Your task to perform on an android device: change your default location settings in chrome Image 0: 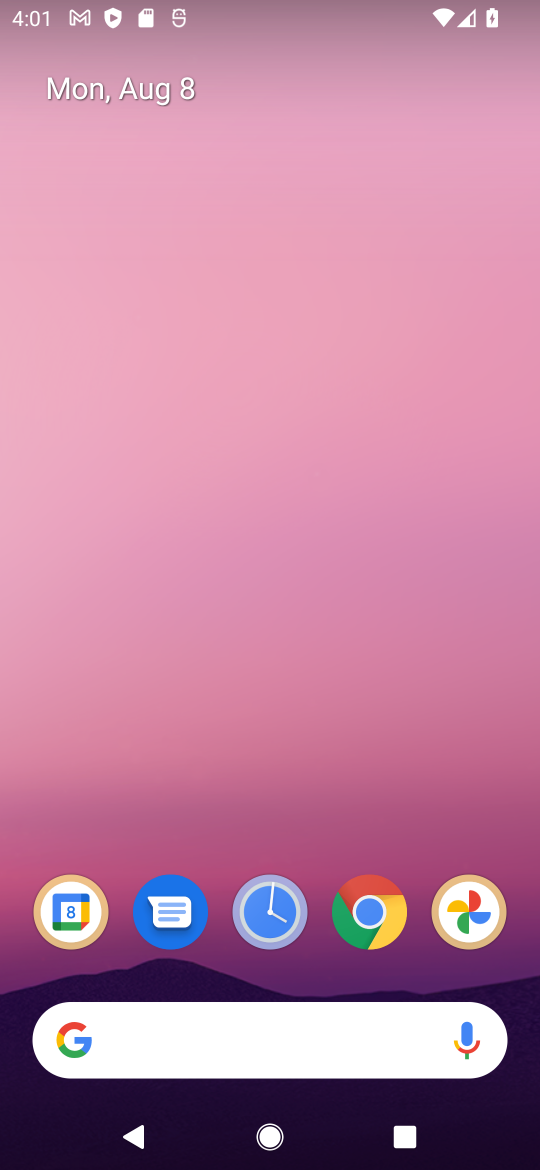
Step 0: click (372, 920)
Your task to perform on an android device: change your default location settings in chrome Image 1: 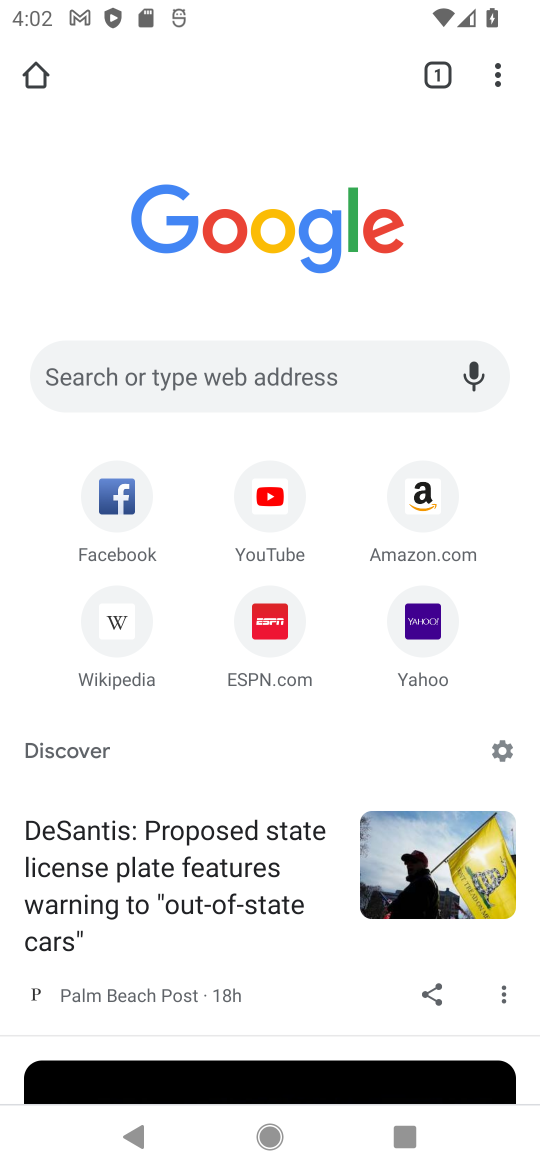
Step 1: click (497, 82)
Your task to perform on an android device: change your default location settings in chrome Image 2: 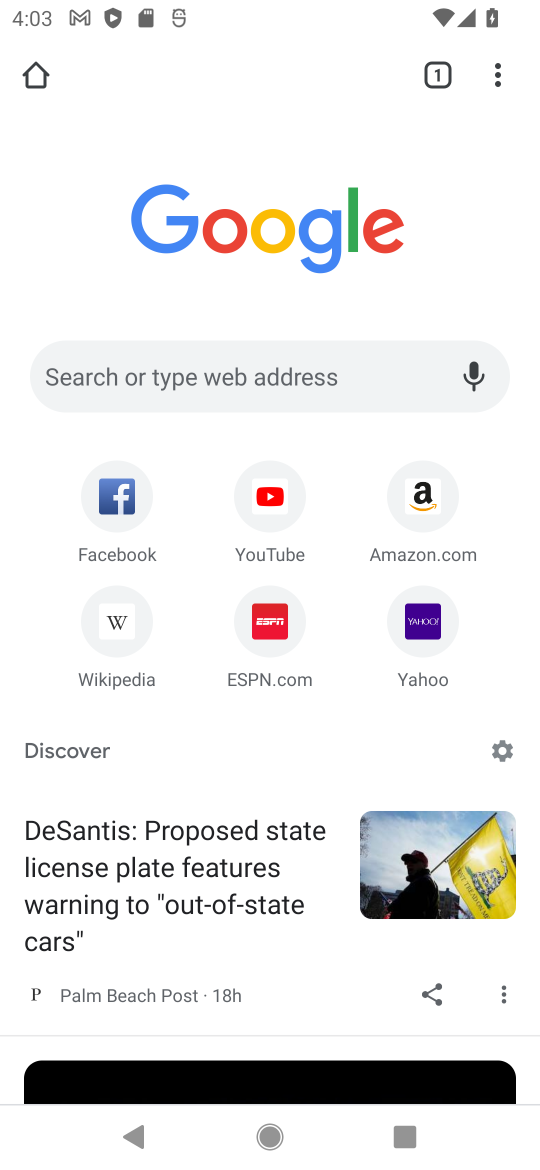
Step 2: click (499, 75)
Your task to perform on an android device: change your default location settings in chrome Image 3: 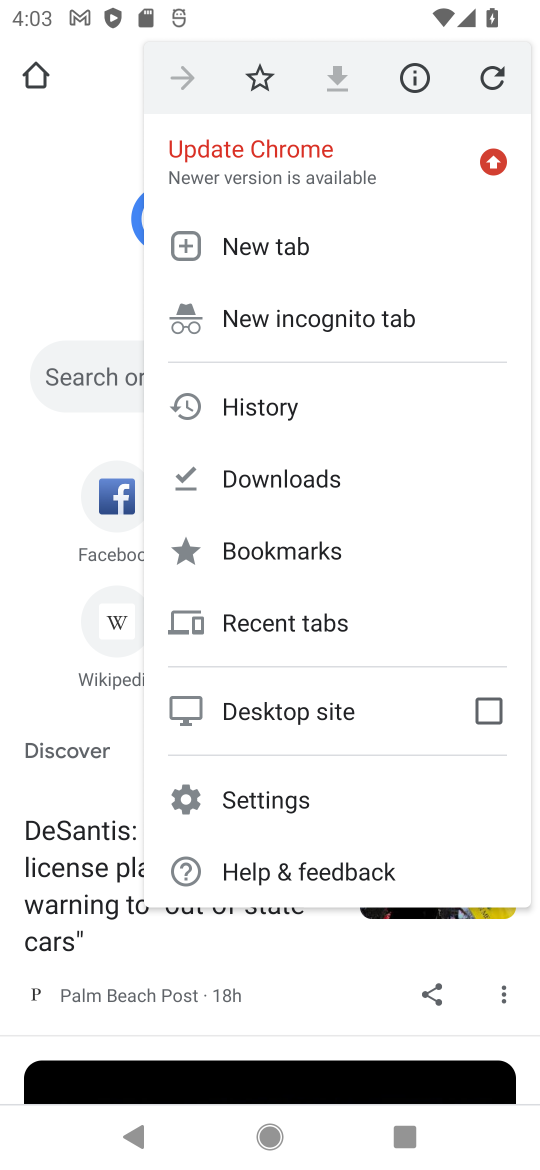
Step 3: click (248, 800)
Your task to perform on an android device: change your default location settings in chrome Image 4: 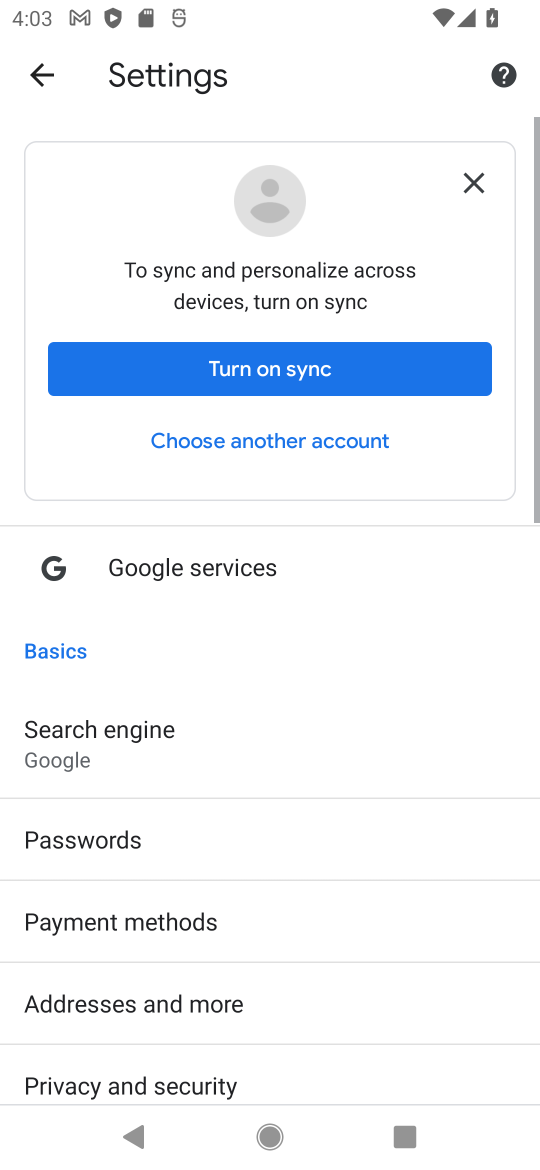
Step 4: drag from (57, 657) to (272, 110)
Your task to perform on an android device: change your default location settings in chrome Image 5: 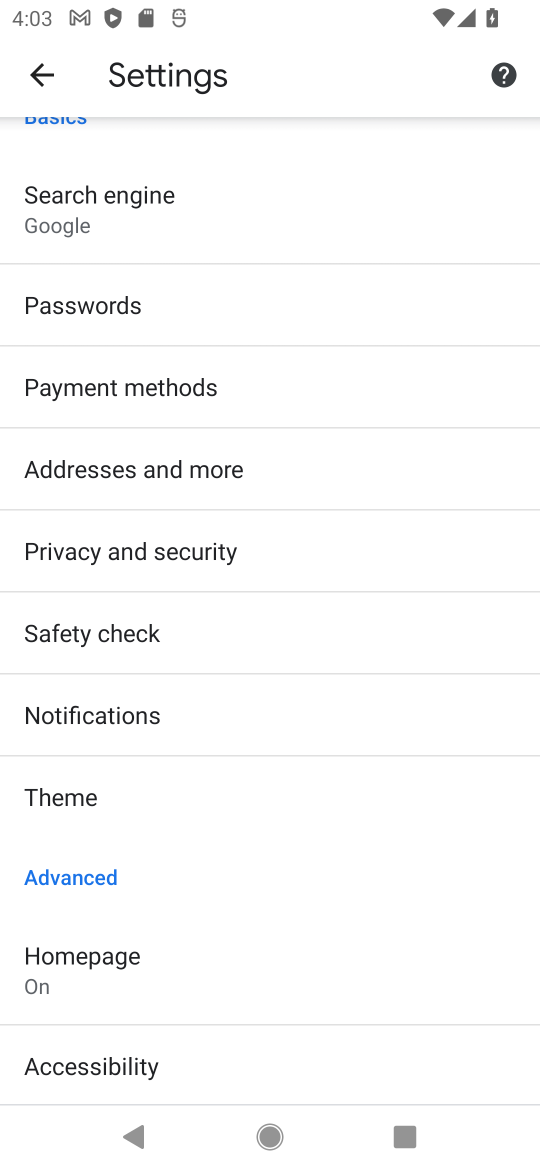
Step 5: drag from (65, 769) to (272, 151)
Your task to perform on an android device: change your default location settings in chrome Image 6: 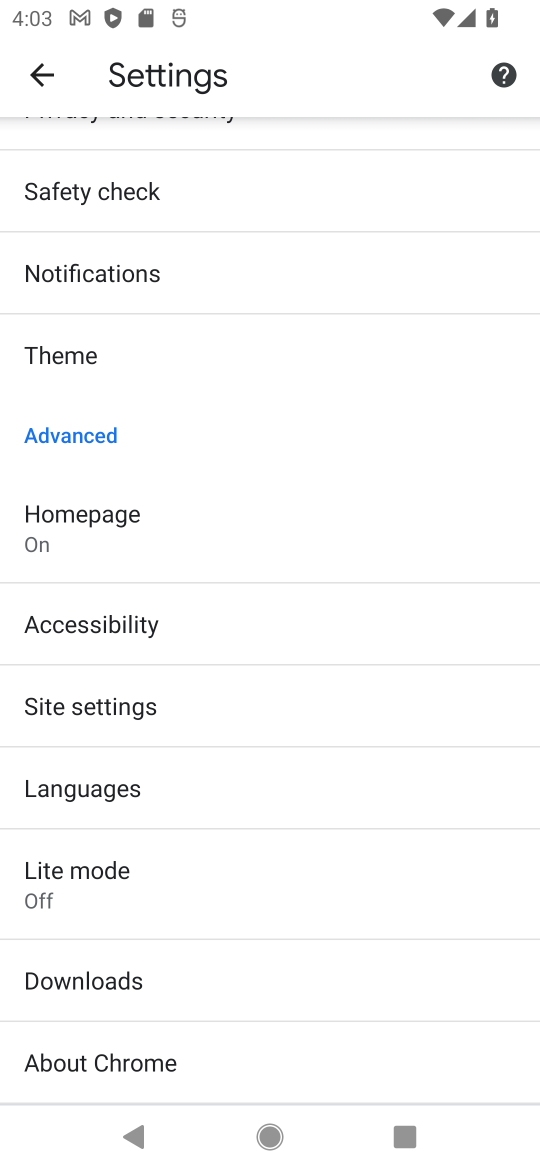
Step 6: click (106, 707)
Your task to perform on an android device: change your default location settings in chrome Image 7: 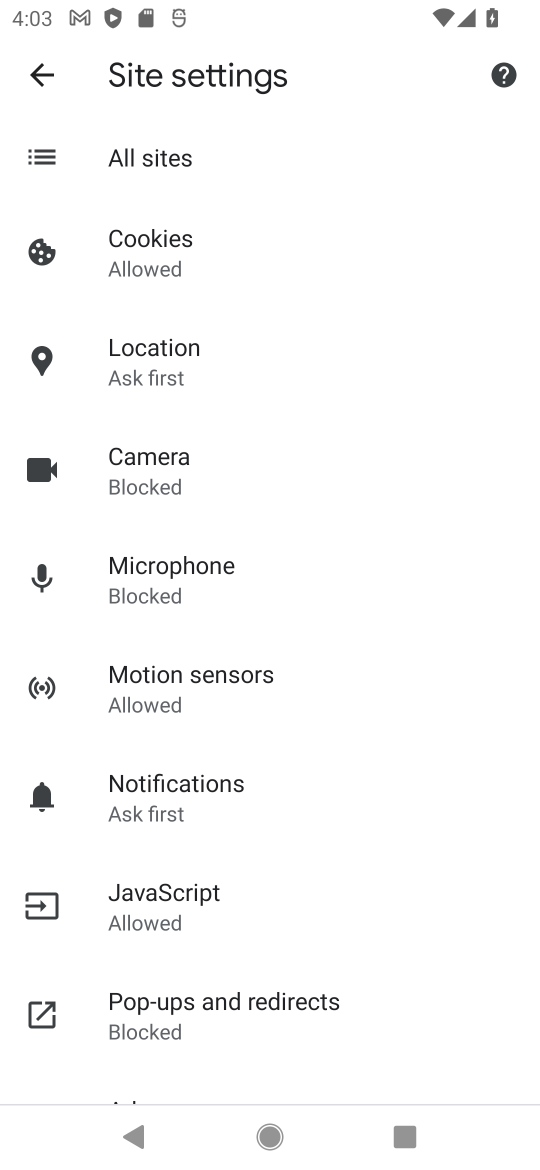
Step 7: click (125, 345)
Your task to perform on an android device: change your default location settings in chrome Image 8: 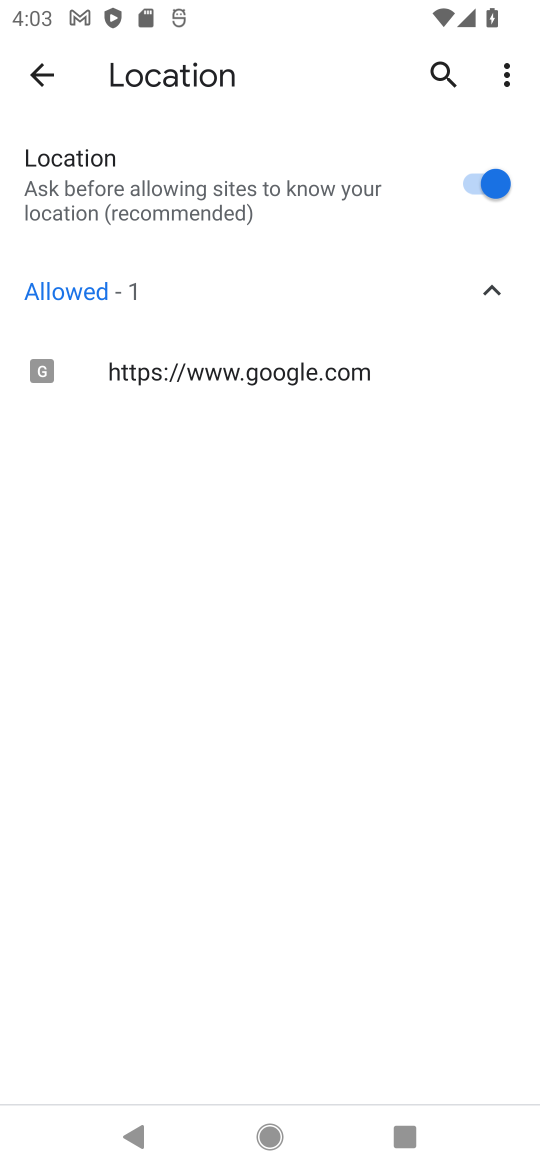
Step 8: task complete